Your task to perform on an android device: open a bookmark in the chrome app Image 0: 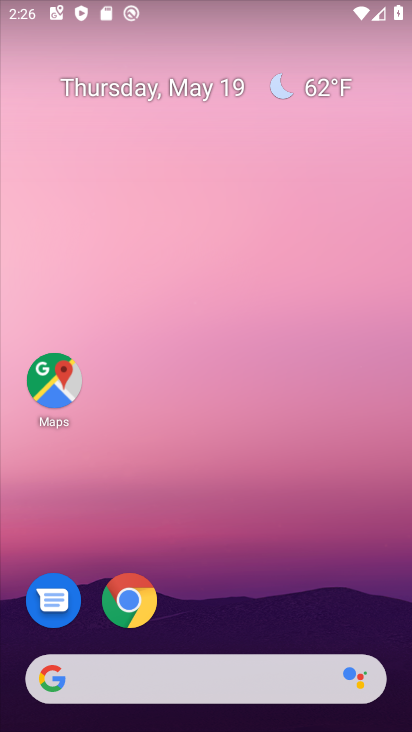
Step 0: press home button
Your task to perform on an android device: open a bookmark in the chrome app Image 1: 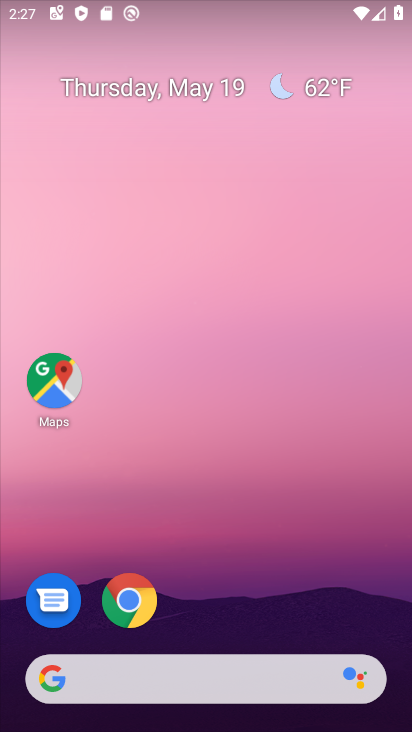
Step 1: click (118, 597)
Your task to perform on an android device: open a bookmark in the chrome app Image 2: 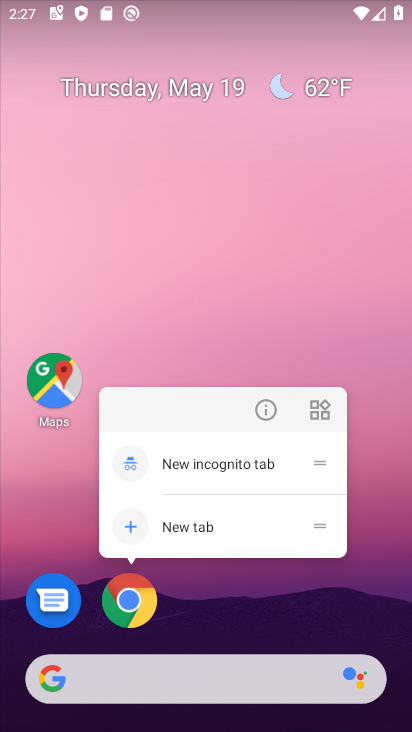
Step 2: click (237, 309)
Your task to perform on an android device: open a bookmark in the chrome app Image 3: 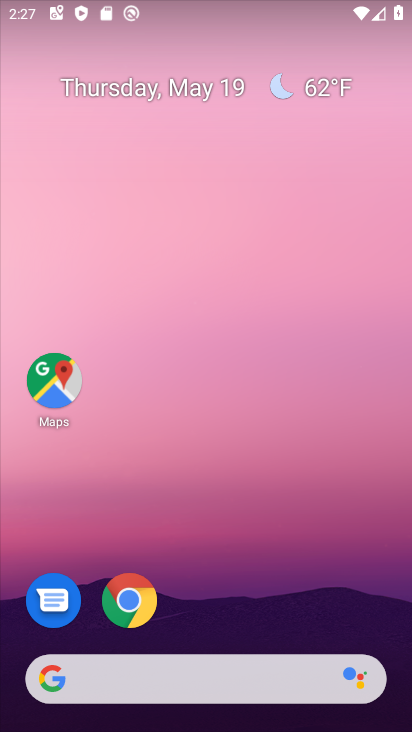
Step 3: click (127, 601)
Your task to perform on an android device: open a bookmark in the chrome app Image 4: 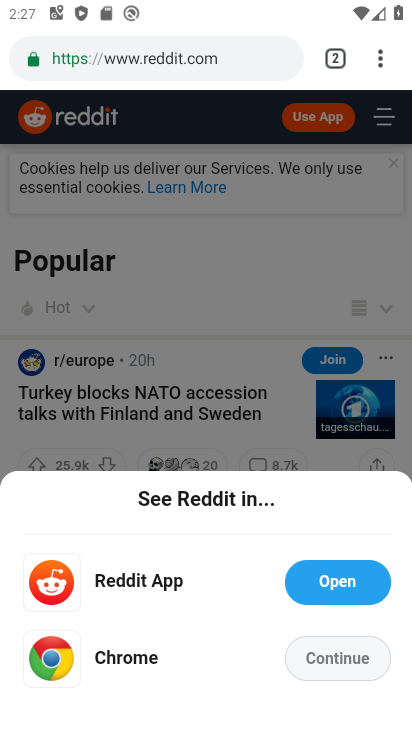
Step 4: click (385, 64)
Your task to perform on an android device: open a bookmark in the chrome app Image 5: 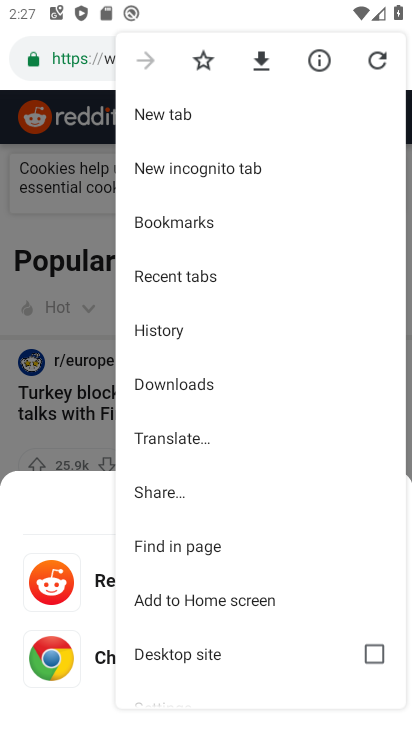
Step 5: click (176, 227)
Your task to perform on an android device: open a bookmark in the chrome app Image 6: 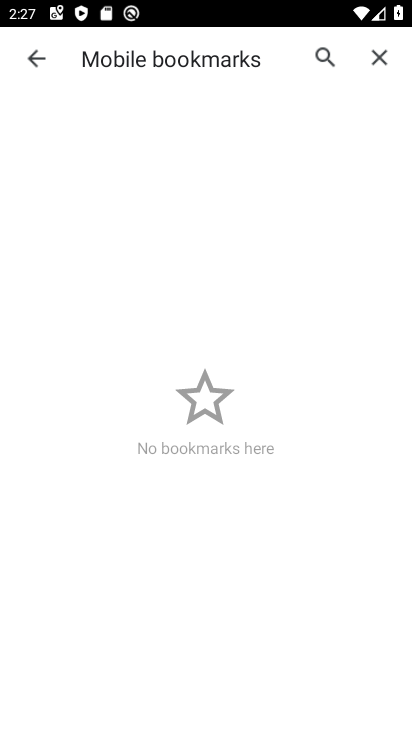
Step 6: task complete